Your task to perform on an android device: turn off smart reply in the gmail app Image 0: 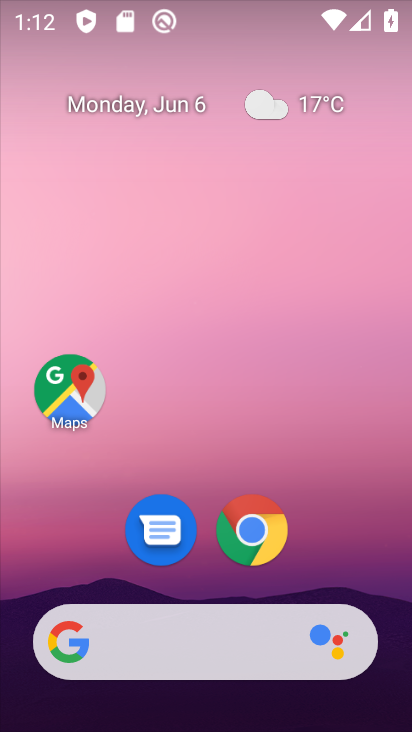
Step 0: drag from (334, 588) to (325, 179)
Your task to perform on an android device: turn off smart reply in the gmail app Image 1: 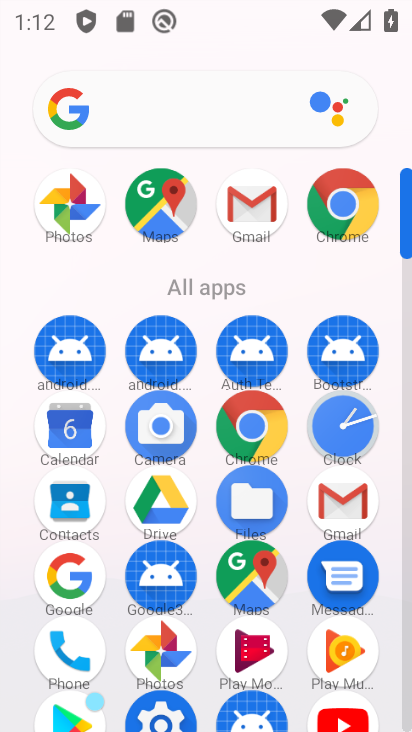
Step 1: click (323, 514)
Your task to perform on an android device: turn off smart reply in the gmail app Image 2: 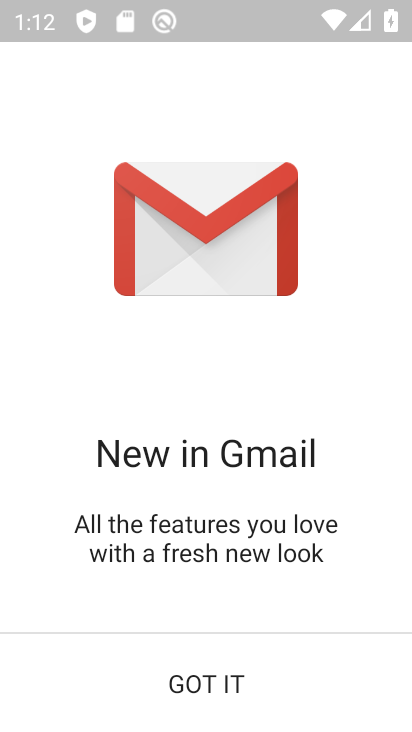
Step 2: click (191, 680)
Your task to perform on an android device: turn off smart reply in the gmail app Image 3: 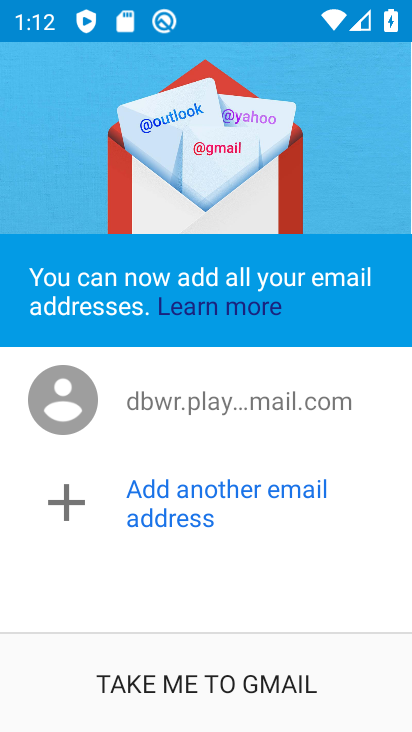
Step 3: click (204, 665)
Your task to perform on an android device: turn off smart reply in the gmail app Image 4: 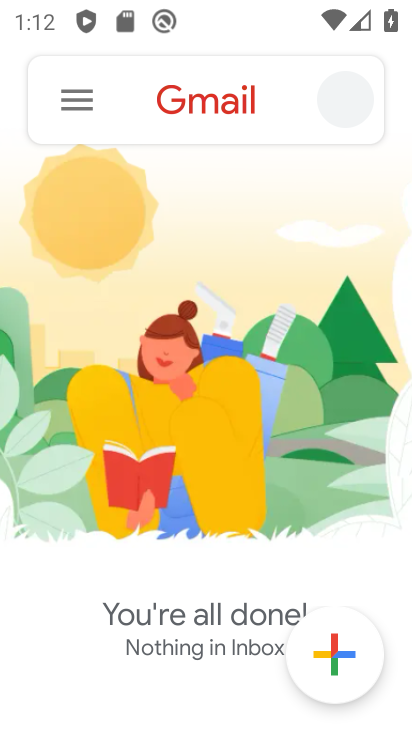
Step 4: click (65, 97)
Your task to perform on an android device: turn off smart reply in the gmail app Image 5: 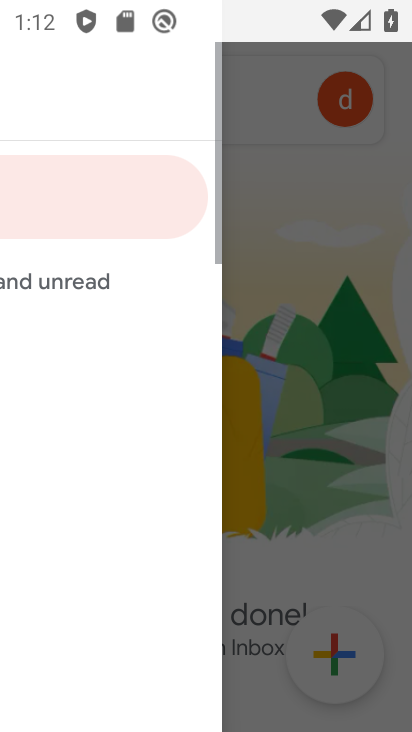
Step 5: click (158, 456)
Your task to perform on an android device: turn off smart reply in the gmail app Image 6: 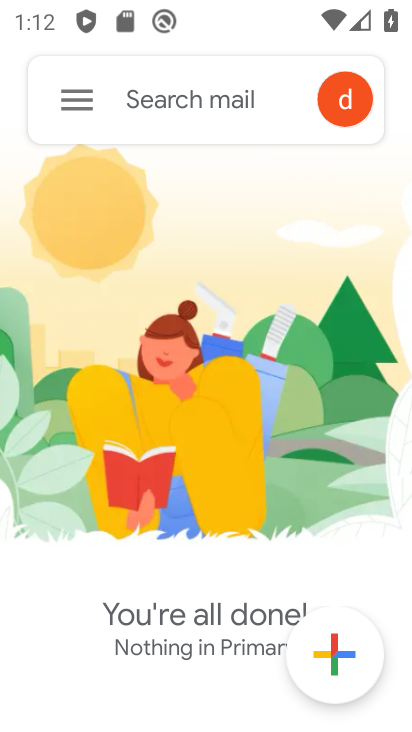
Step 6: click (61, 98)
Your task to perform on an android device: turn off smart reply in the gmail app Image 7: 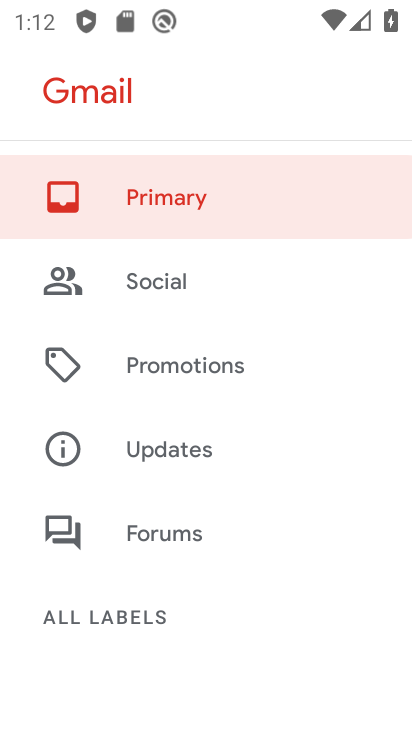
Step 7: drag from (152, 609) to (160, 247)
Your task to perform on an android device: turn off smart reply in the gmail app Image 8: 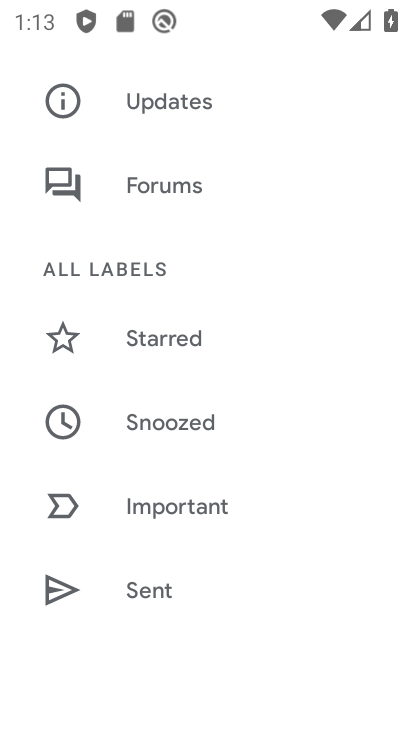
Step 8: drag from (154, 582) to (188, 198)
Your task to perform on an android device: turn off smart reply in the gmail app Image 9: 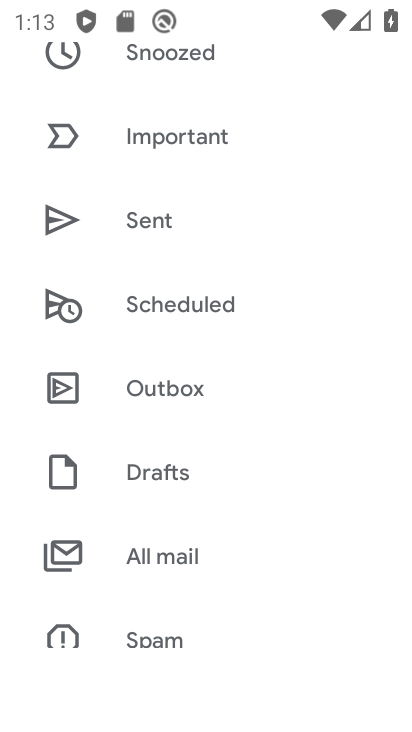
Step 9: drag from (188, 615) to (193, 205)
Your task to perform on an android device: turn off smart reply in the gmail app Image 10: 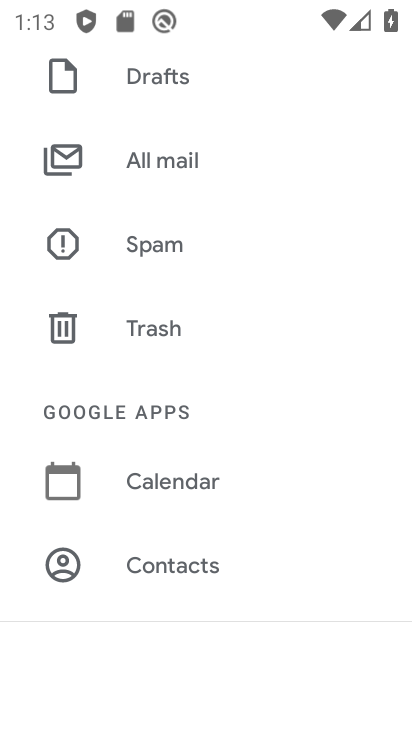
Step 10: drag from (155, 570) to (171, 232)
Your task to perform on an android device: turn off smart reply in the gmail app Image 11: 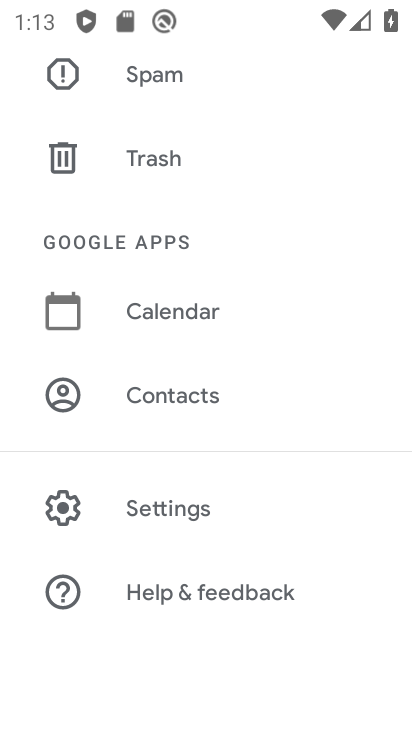
Step 11: click (154, 491)
Your task to perform on an android device: turn off smart reply in the gmail app Image 12: 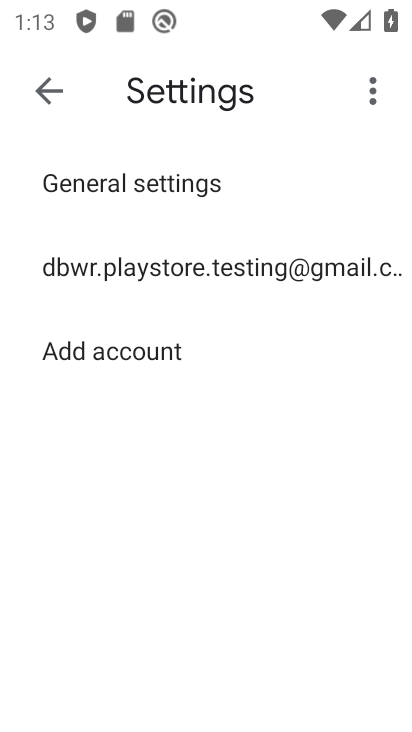
Step 12: click (190, 268)
Your task to perform on an android device: turn off smart reply in the gmail app Image 13: 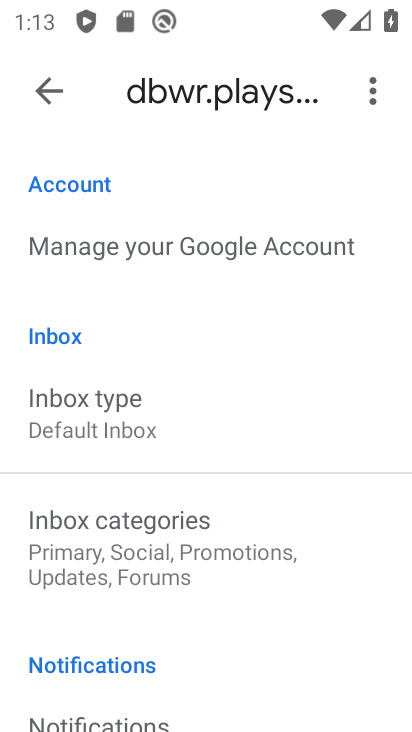
Step 13: drag from (244, 610) to (276, 195)
Your task to perform on an android device: turn off smart reply in the gmail app Image 14: 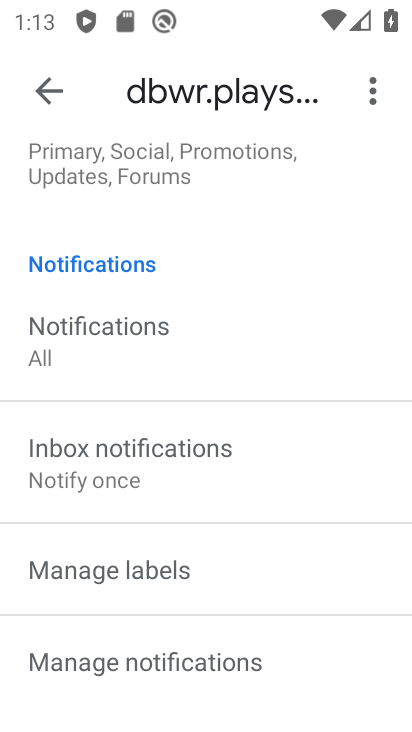
Step 14: drag from (219, 607) to (238, 217)
Your task to perform on an android device: turn off smart reply in the gmail app Image 15: 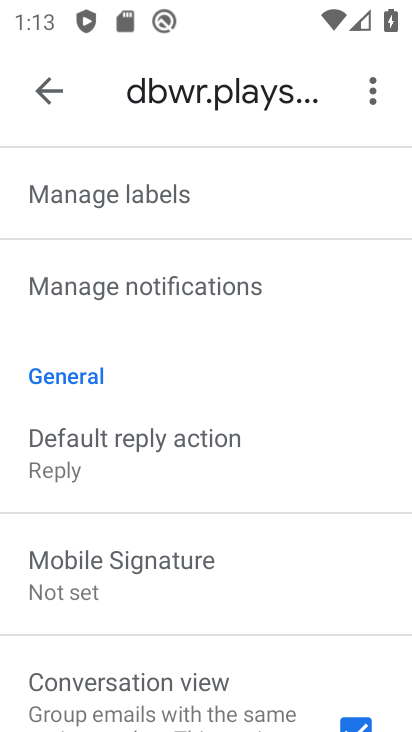
Step 15: drag from (213, 606) to (230, 266)
Your task to perform on an android device: turn off smart reply in the gmail app Image 16: 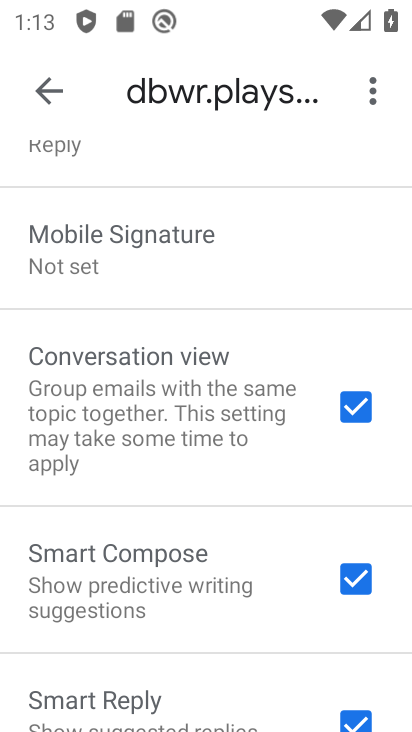
Step 16: drag from (288, 580) to (288, 386)
Your task to perform on an android device: turn off smart reply in the gmail app Image 17: 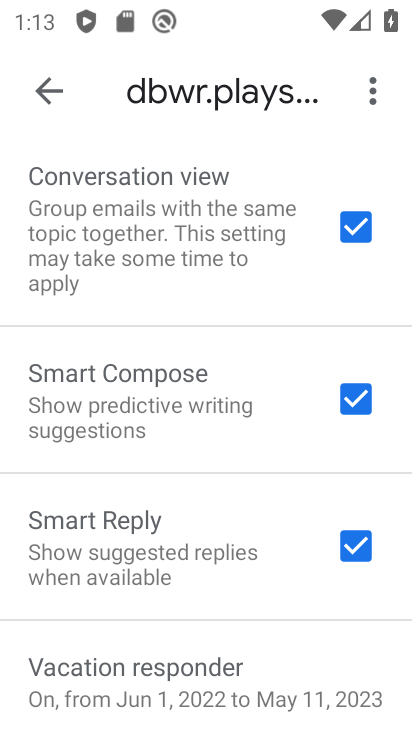
Step 17: click (339, 545)
Your task to perform on an android device: turn off smart reply in the gmail app Image 18: 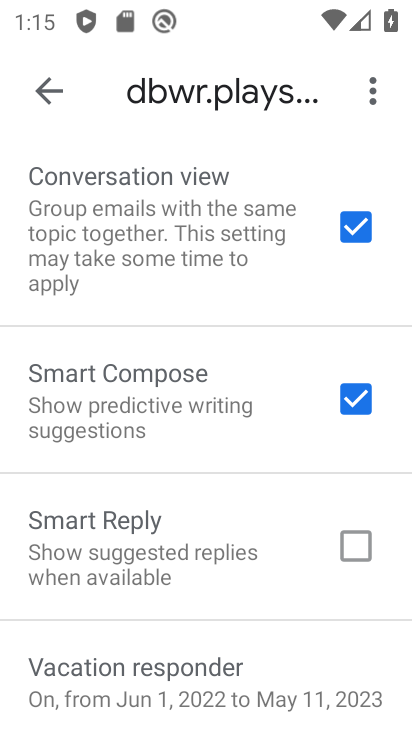
Step 18: task complete